Your task to perform on an android device: snooze an email in the gmail app Image 0: 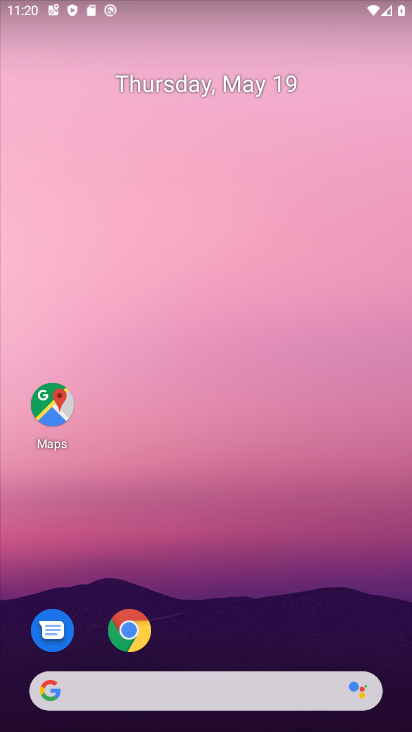
Step 0: drag from (241, 599) to (201, 77)
Your task to perform on an android device: snooze an email in the gmail app Image 1: 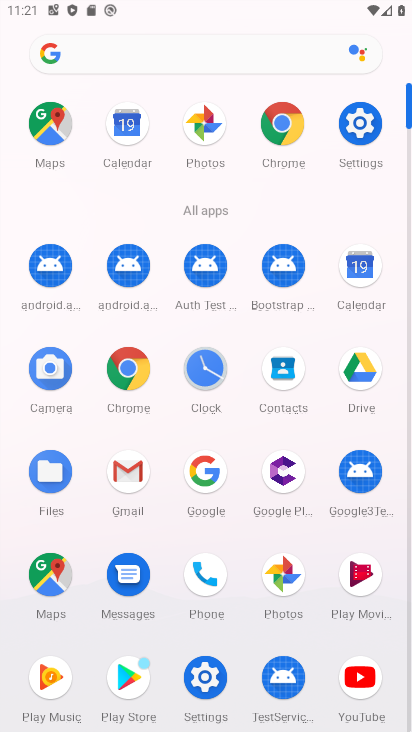
Step 1: click (127, 472)
Your task to perform on an android device: snooze an email in the gmail app Image 2: 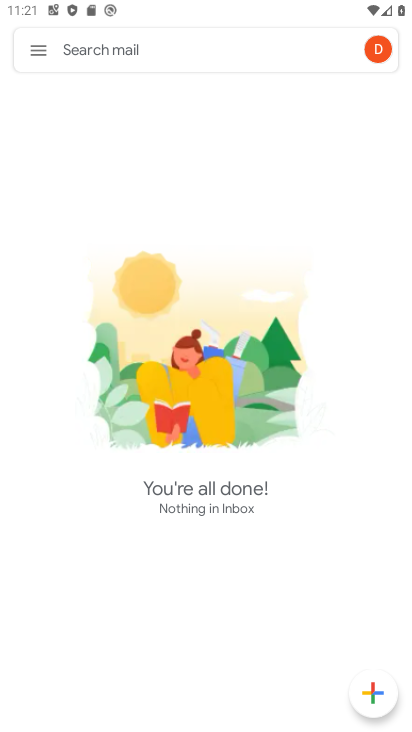
Step 2: click (42, 53)
Your task to perform on an android device: snooze an email in the gmail app Image 3: 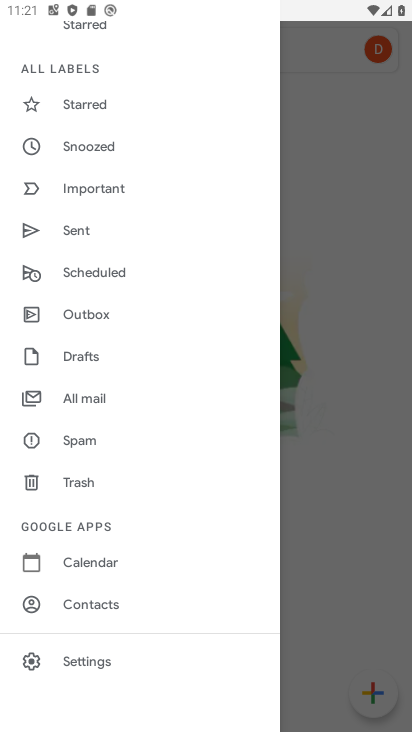
Step 3: click (86, 383)
Your task to perform on an android device: snooze an email in the gmail app Image 4: 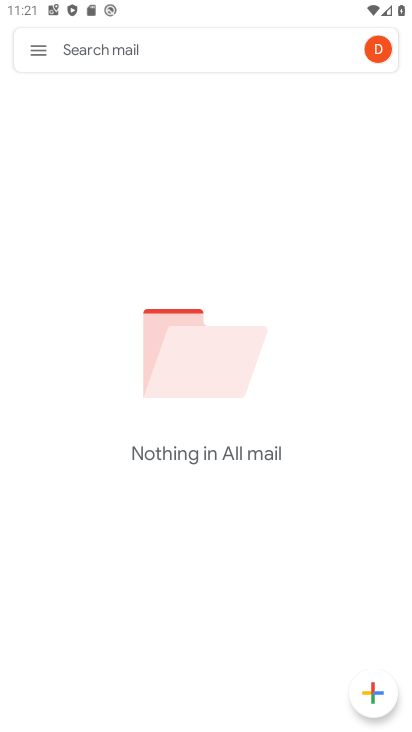
Step 4: click (45, 50)
Your task to perform on an android device: snooze an email in the gmail app Image 5: 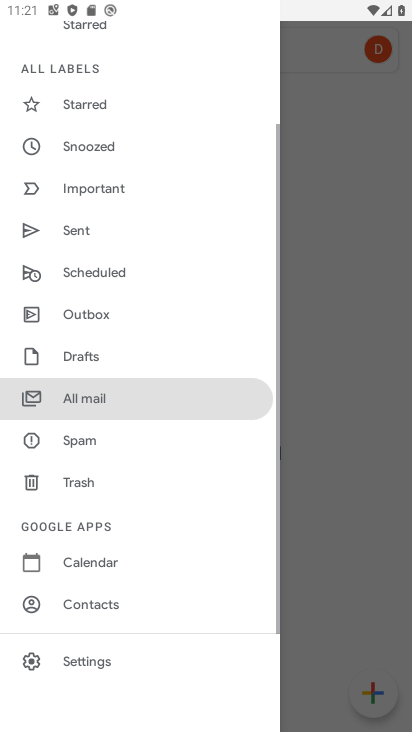
Step 5: drag from (113, 241) to (119, 358)
Your task to perform on an android device: snooze an email in the gmail app Image 6: 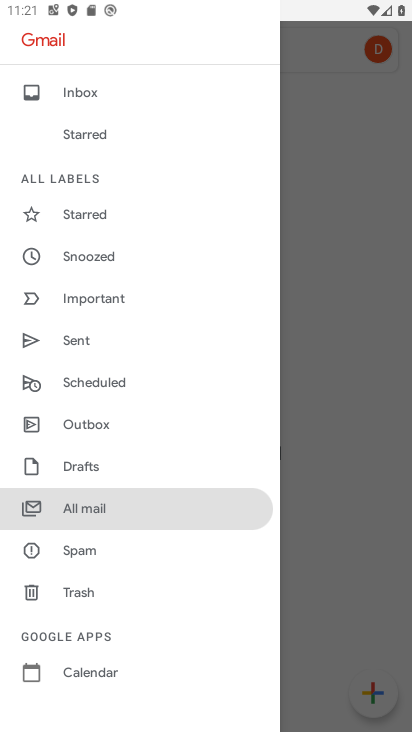
Step 6: click (90, 96)
Your task to perform on an android device: snooze an email in the gmail app Image 7: 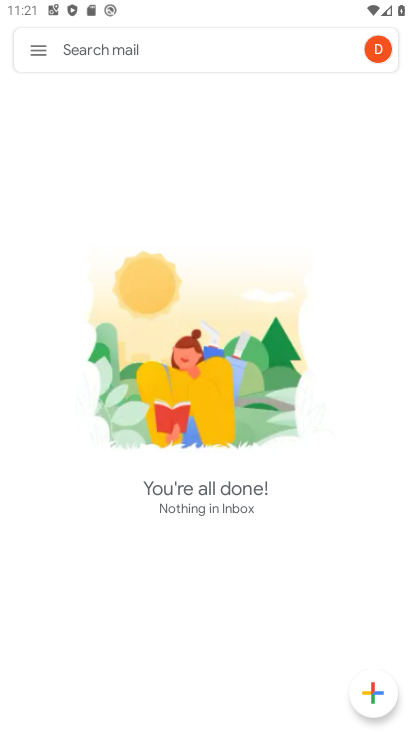
Step 7: click (40, 48)
Your task to perform on an android device: snooze an email in the gmail app Image 8: 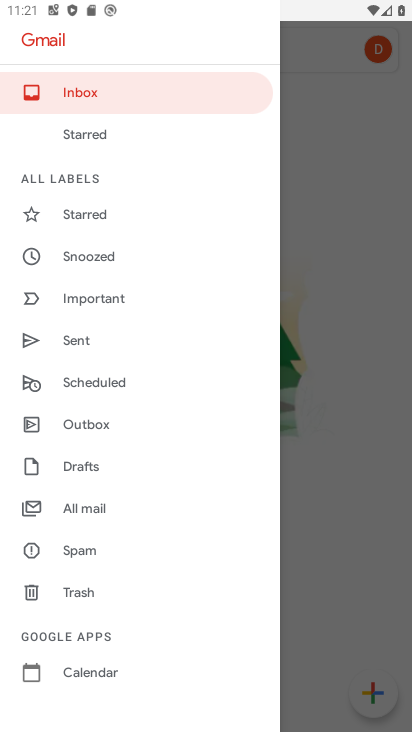
Step 8: click (91, 596)
Your task to perform on an android device: snooze an email in the gmail app Image 9: 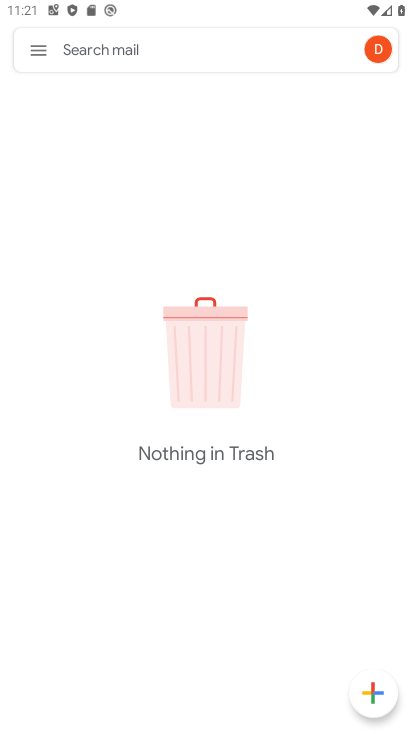
Step 9: click (37, 48)
Your task to perform on an android device: snooze an email in the gmail app Image 10: 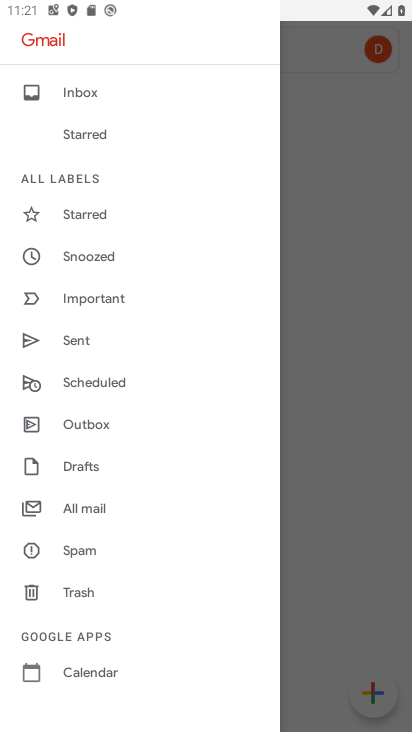
Step 10: click (354, 238)
Your task to perform on an android device: snooze an email in the gmail app Image 11: 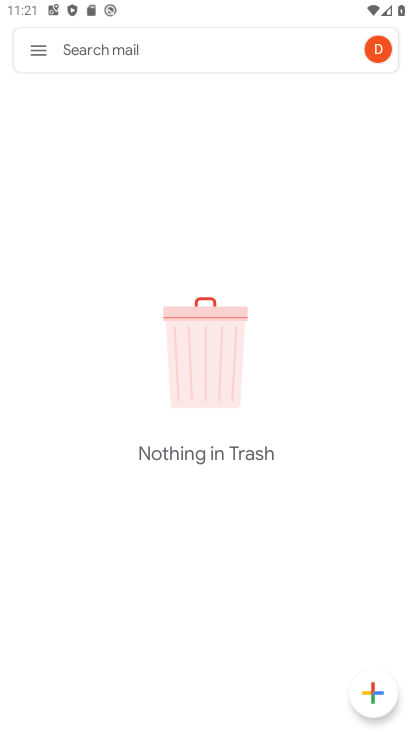
Step 11: click (36, 46)
Your task to perform on an android device: snooze an email in the gmail app Image 12: 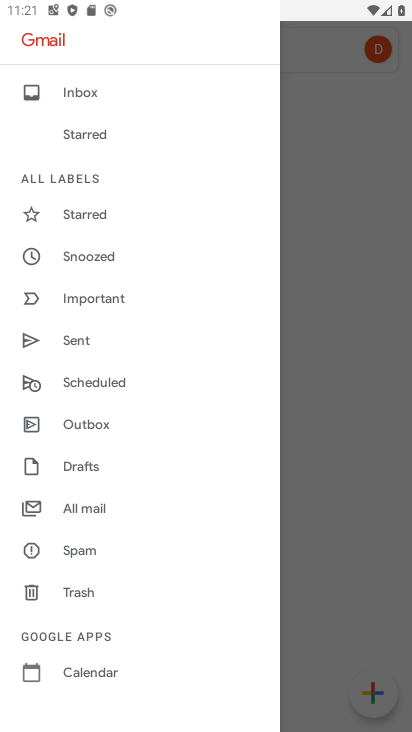
Step 12: drag from (102, 586) to (103, 476)
Your task to perform on an android device: snooze an email in the gmail app Image 13: 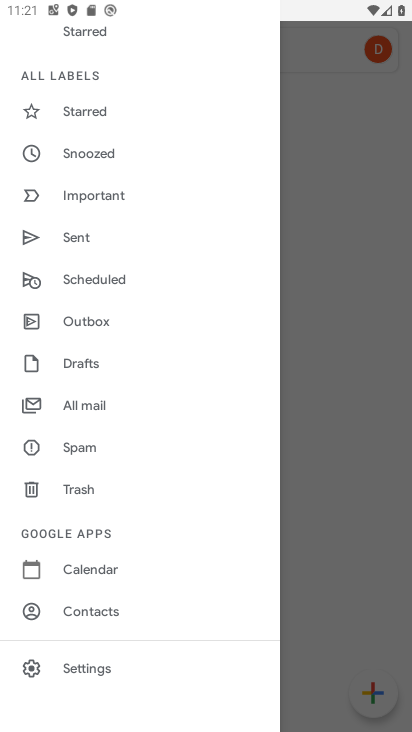
Step 13: drag from (113, 548) to (148, 446)
Your task to perform on an android device: snooze an email in the gmail app Image 14: 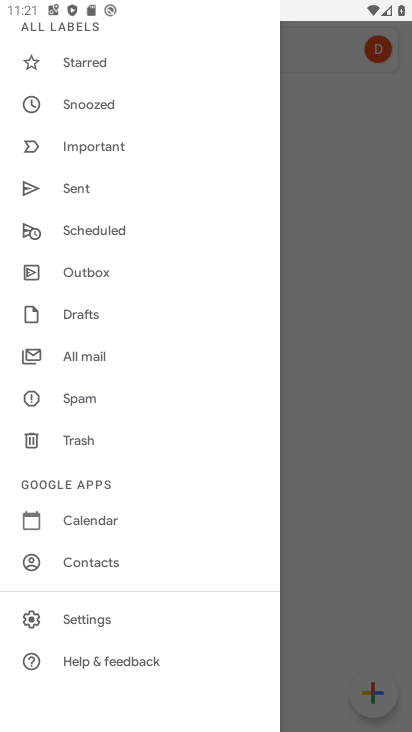
Step 14: drag from (117, 158) to (124, 296)
Your task to perform on an android device: snooze an email in the gmail app Image 15: 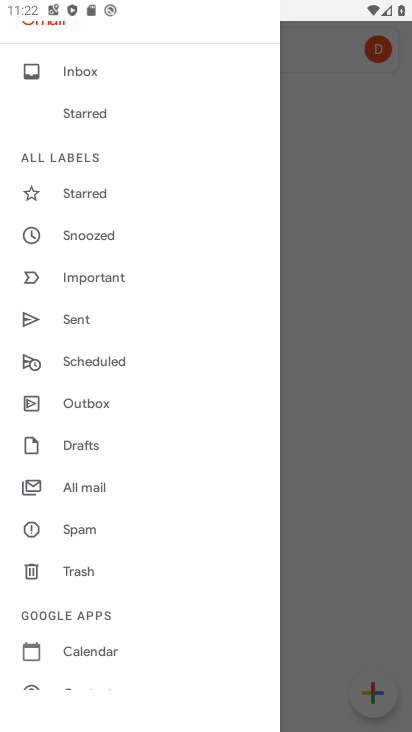
Step 15: click (102, 246)
Your task to perform on an android device: snooze an email in the gmail app Image 16: 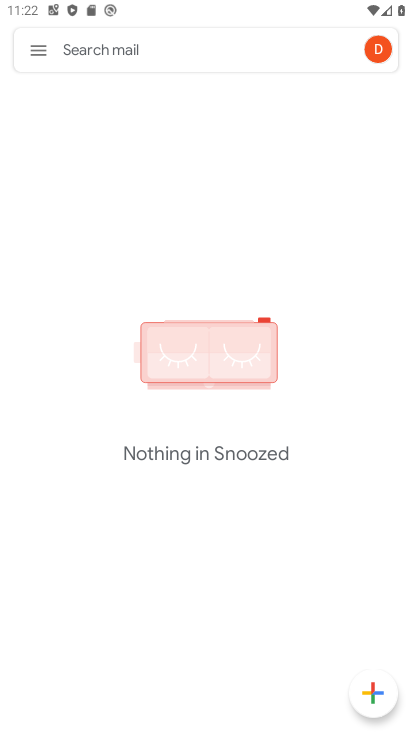
Step 16: task complete